Your task to perform on an android device: Clear all items from cart on costco. Image 0: 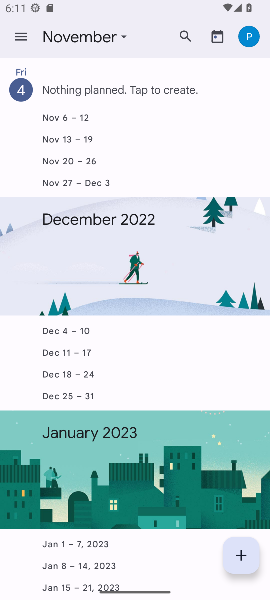
Step 0: press home button
Your task to perform on an android device: Clear all items from cart on costco. Image 1: 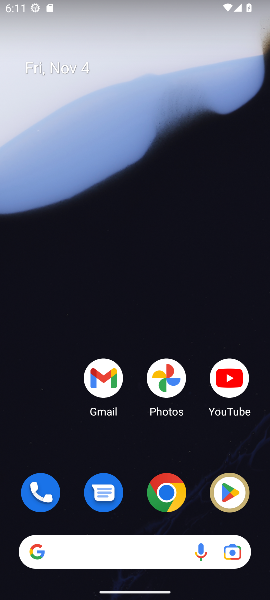
Step 1: drag from (131, 449) to (180, 82)
Your task to perform on an android device: Clear all items from cart on costco. Image 2: 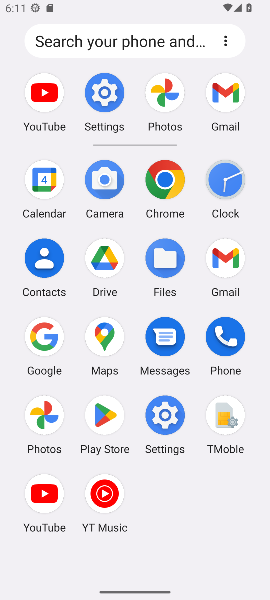
Step 2: click (167, 180)
Your task to perform on an android device: Clear all items from cart on costco. Image 3: 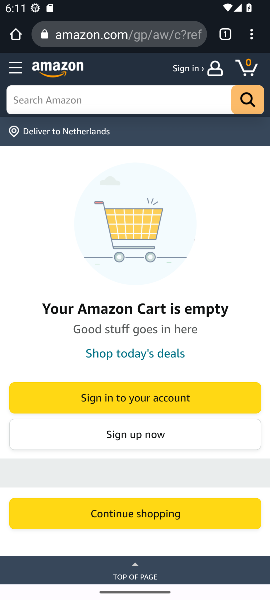
Step 3: click (134, 46)
Your task to perform on an android device: Clear all items from cart on costco. Image 4: 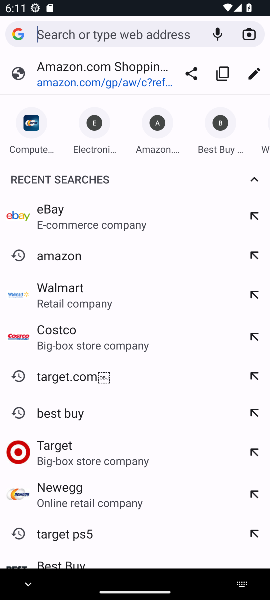
Step 4: type "costco.com"
Your task to perform on an android device: Clear all items from cart on costco. Image 5: 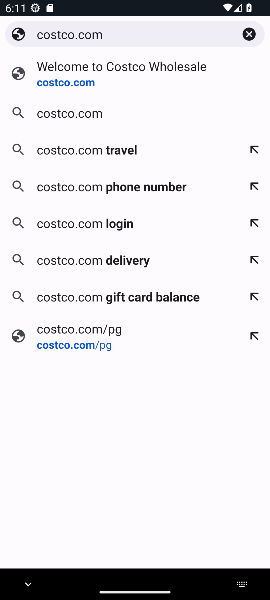
Step 5: press enter
Your task to perform on an android device: Clear all items from cart on costco. Image 6: 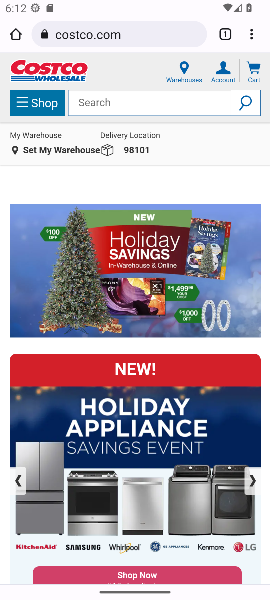
Step 6: click (255, 67)
Your task to perform on an android device: Clear all items from cart on costco. Image 7: 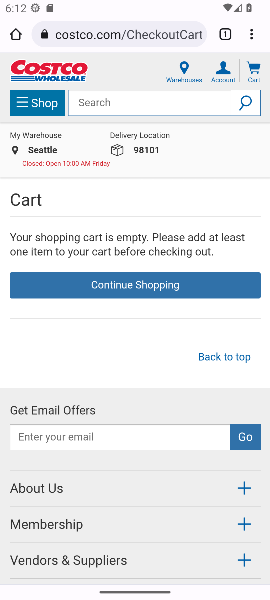
Step 7: task complete